Your task to perform on an android device: Go to Android settings Image 0: 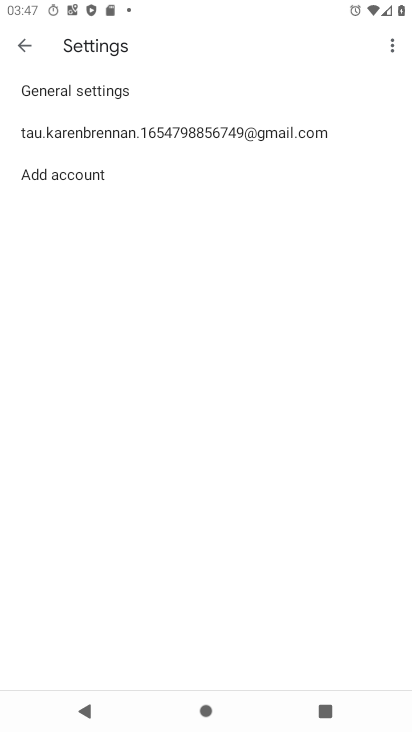
Step 0: press home button
Your task to perform on an android device: Go to Android settings Image 1: 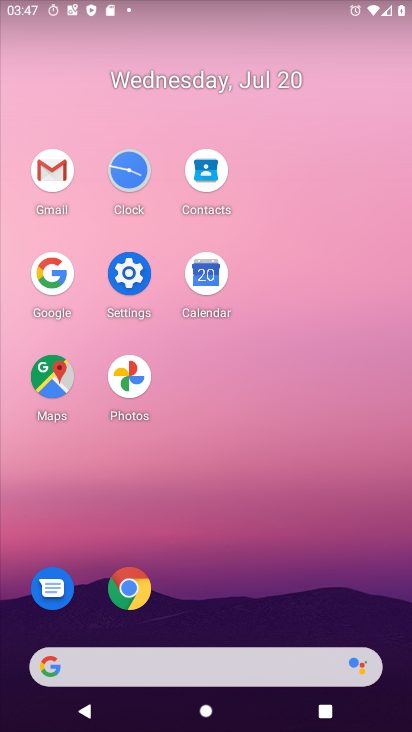
Step 1: click (124, 280)
Your task to perform on an android device: Go to Android settings Image 2: 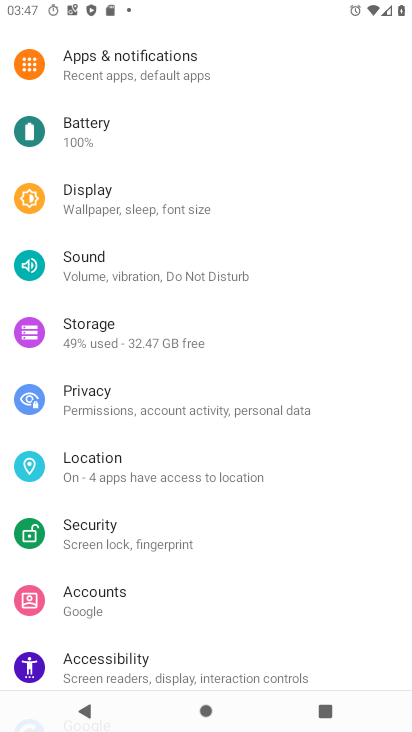
Step 2: task complete